Your task to perform on an android device: Open Google Maps Image 0: 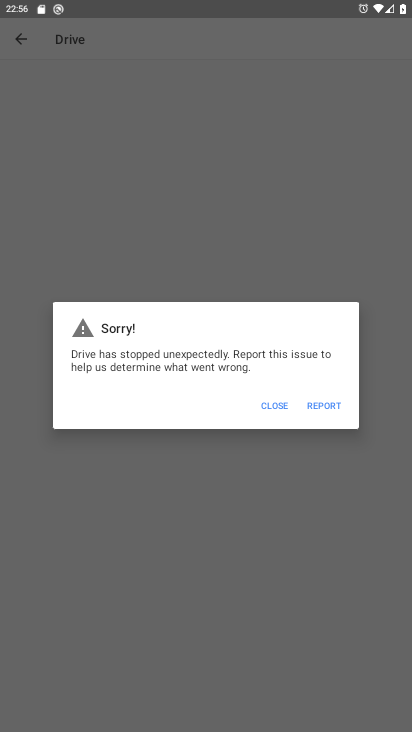
Step 0: press home button
Your task to perform on an android device: Open Google Maps Image 1: 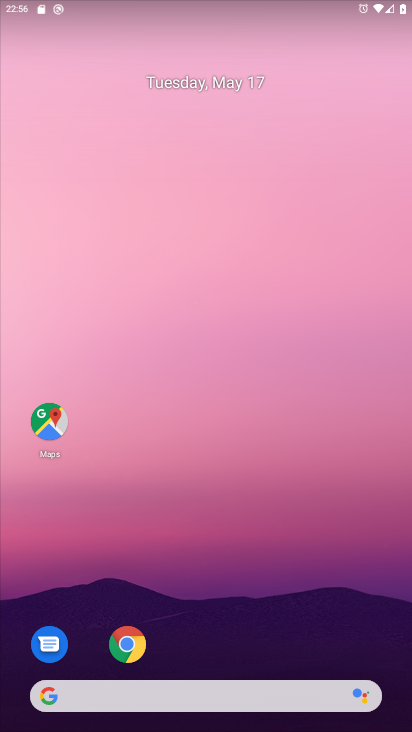
Step 1: drag from (204, 656) to (211, 1)
Your task to perform on an android device: Open Google Maps Image 2: 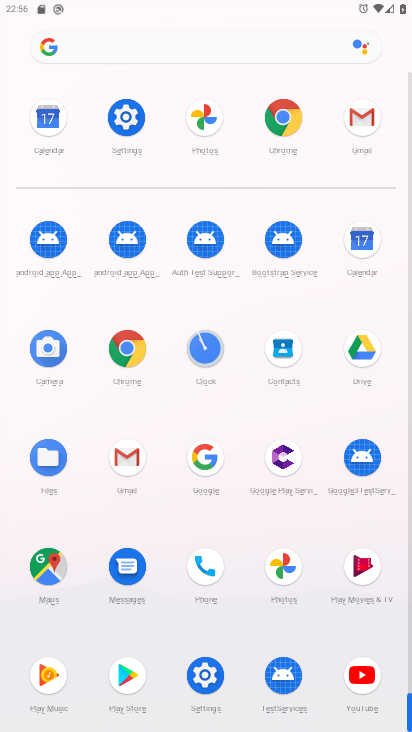
Step 2: click (46, 560)
Your task to perform on an android device: Open Google Maps Image 3: 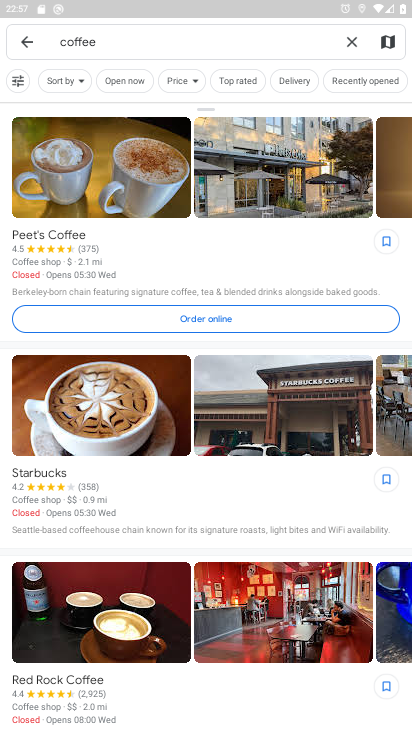
Step 3: click (32, 39)
Your task to perform on an android device: Open Google Maps Image 4: 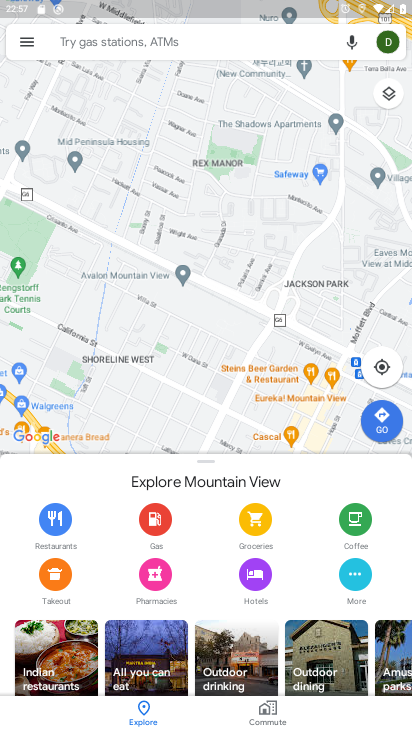
Step 4: task complete